Your task to perform on an android device: Open location settings Image 0: 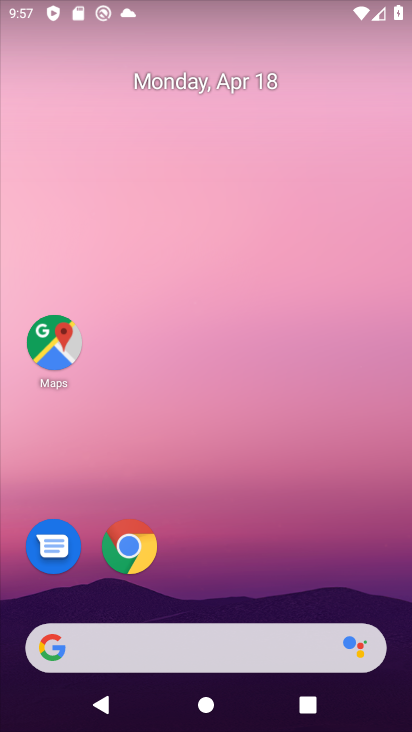
Step 0: drag from (223, 725) to (215, 63)
Your task to perform on an android device: Open location settings Image 1: 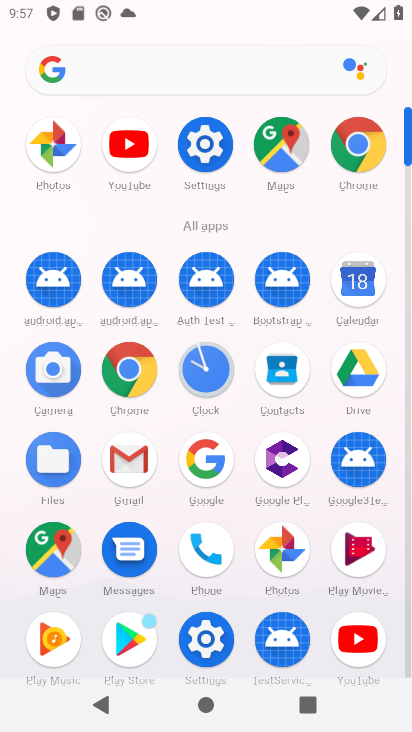
Step 1: click (204, 141)
Your task to perform on an android device: Open location settings Image 2: 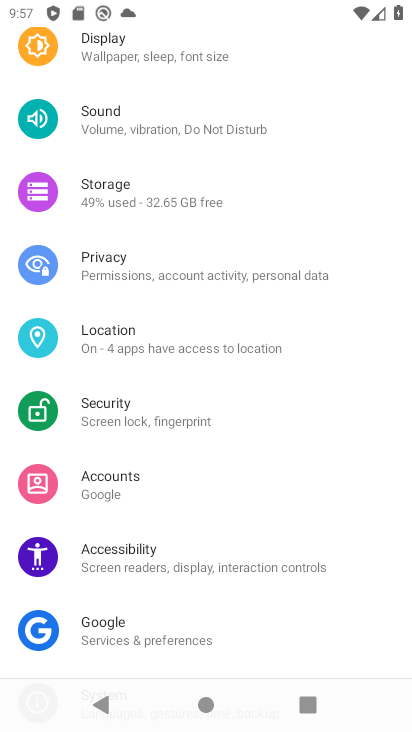
Step 2: click (114, 335)
Your task to perform on an android device: Open location settings Image 3: 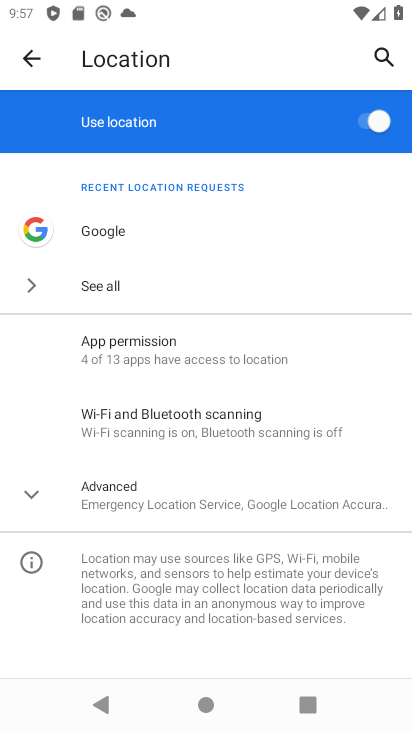
Step 3: click (132, 493)
Your task to perform on an android device: Open location settings Image 4: 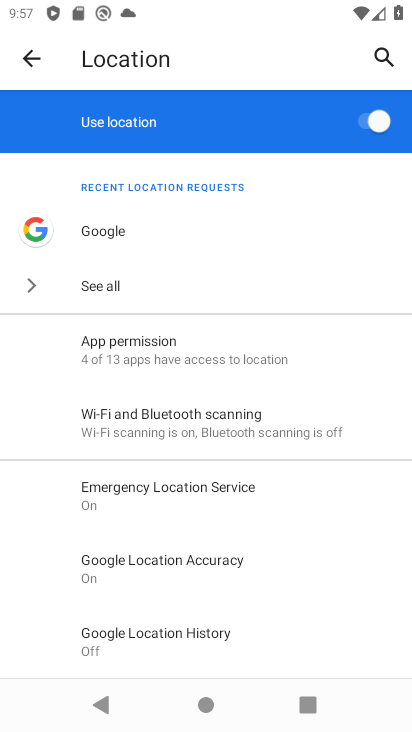
Step 4: task complete